Your task to perform on an android device: set the timer Image 0: 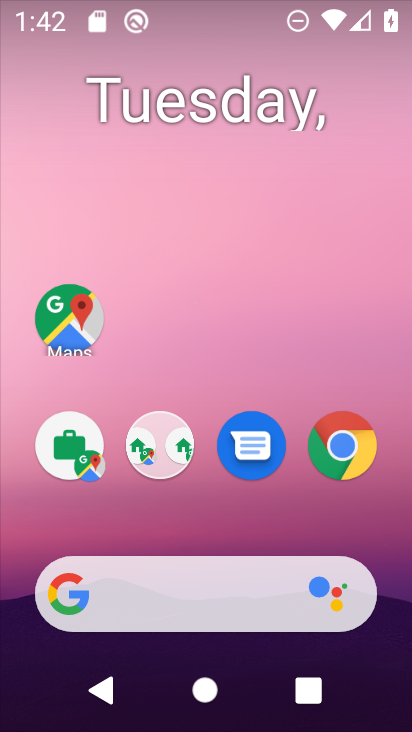
Step 0: drag from (220, 512) to (248, 206)
Your task to perform on an android device: set the timer Image 1: 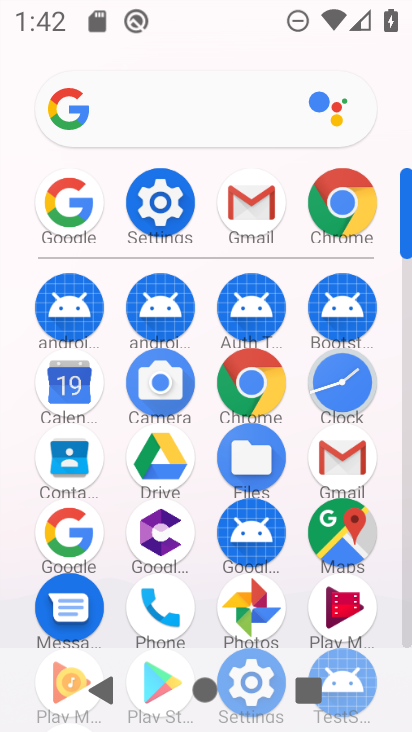
Step 1: click (338, 391)
Your task to perform on an android device: set the timer Image 2: 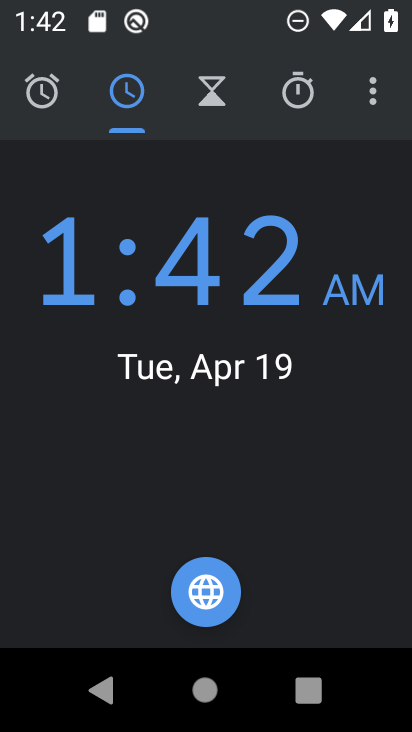
Step 2: click (219, 111)
Your task to perform on an android device: set the timer Image 3: 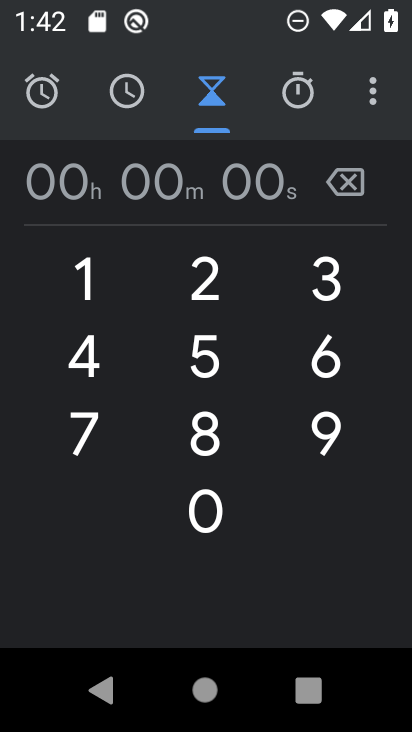
Step 3: click (207, 323)
Your task to perform on an android device: set the timer Image 4: 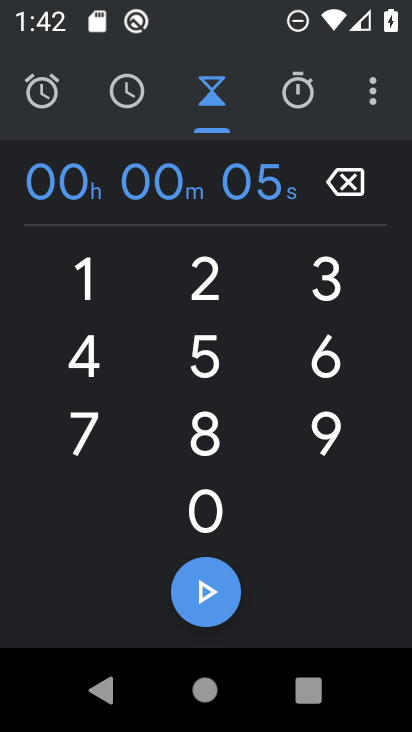
Step 4: click (215, 586)
Your task to perform on an android device: set the timer Image 5: 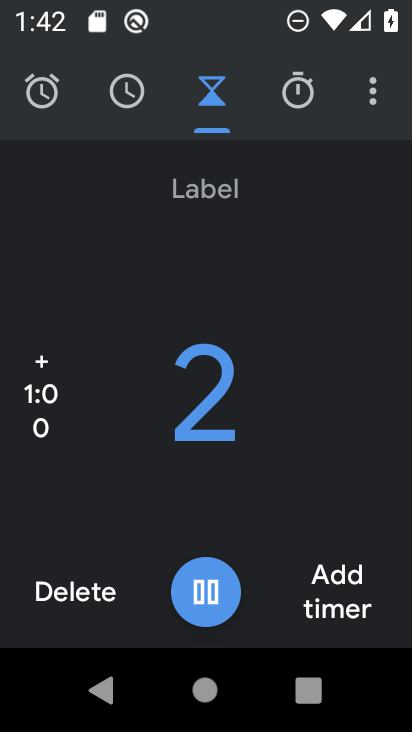
Step 5: task complete